Your task to perform on an android device: set an alarm Image 0: 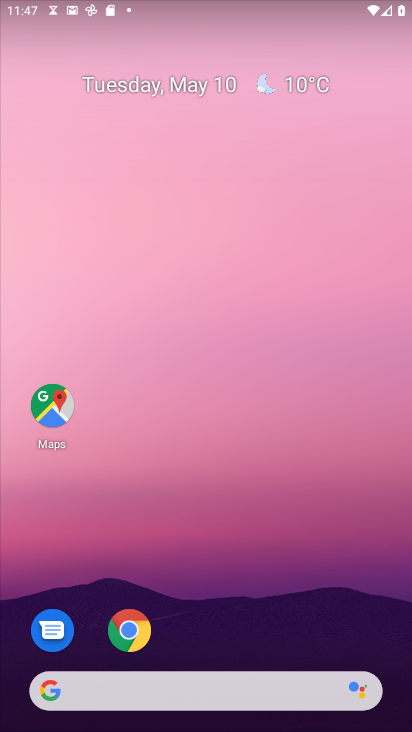
Step 0: drag from (280, 634) to (266, 48)
Your task to perform on an android device: set an alarm Image 1: 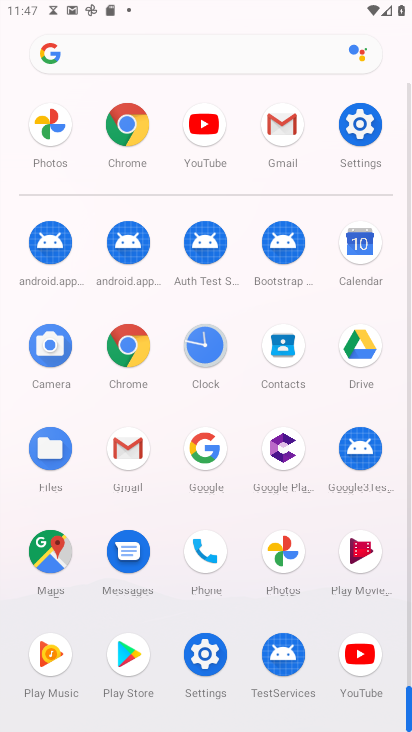
Step 1: drag from (259, 604) to (256, 350)
Your task to perform on an android device: set an alarm Image 2: 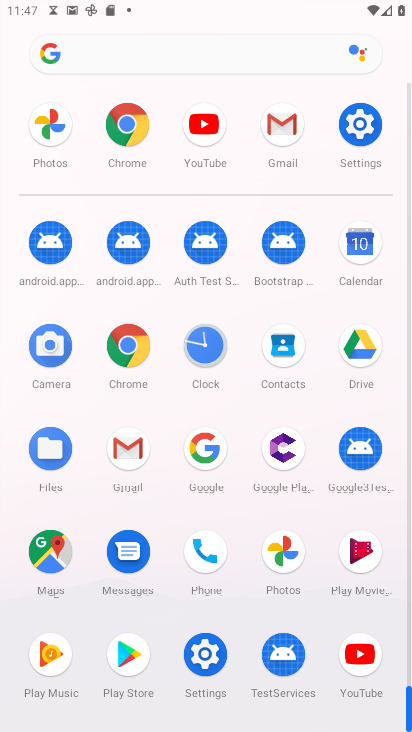
Step 2: click (207, 316)
Your task to perform on an android device: set an alarm Image 3: 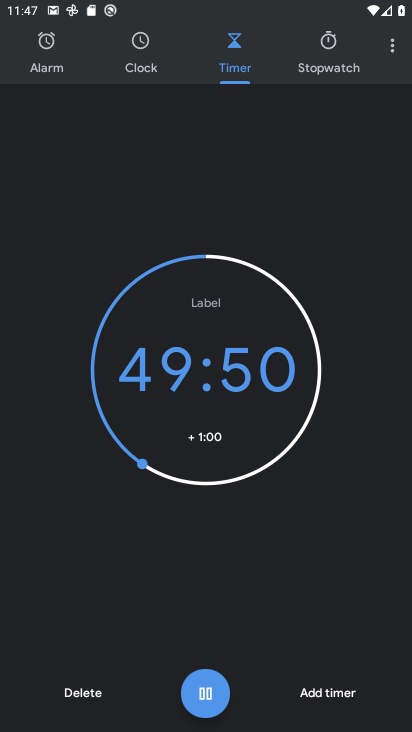
Step 3: click (49, 46)
Your task to perform on an android device: set an alarm Image 4: 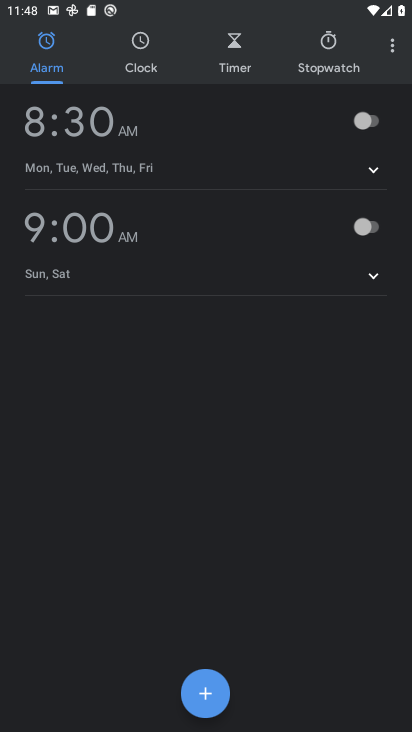
Step 4: click (375, 124)
Your task to perform on an android device: set an alarm Image 5: 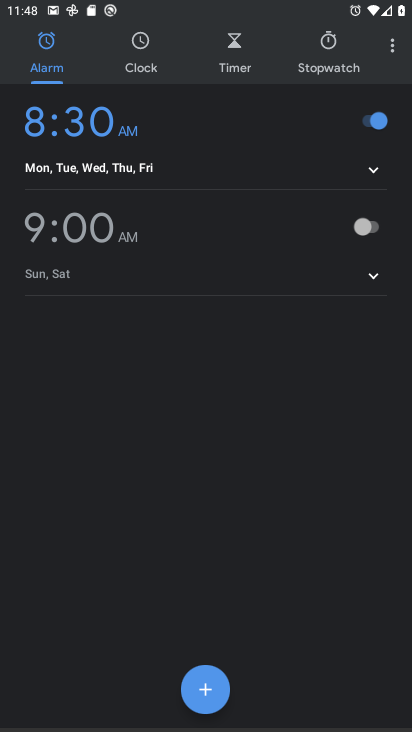
Step 5: task complete